Your task to perform on an android device: Open Google Chrome and click the shortcut for Amazon.com Image 0: 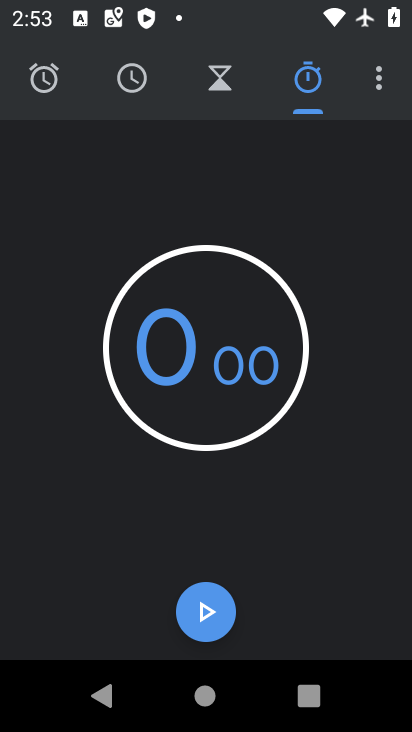
Step 0: press home button
Your task to perform on an android device: Open Google Chrome and click the shortcut for Amazon.com Image 1: 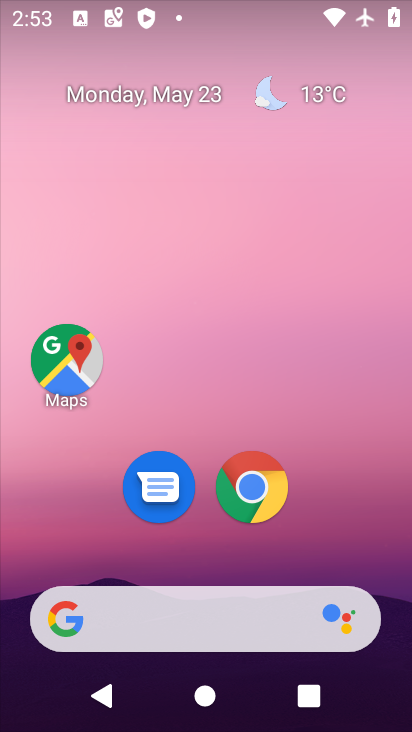
Step 1: click (256, 482)
Your task to perform on an android device: Open Google Chrome and click the shortcut for Amazon.com Image 2: 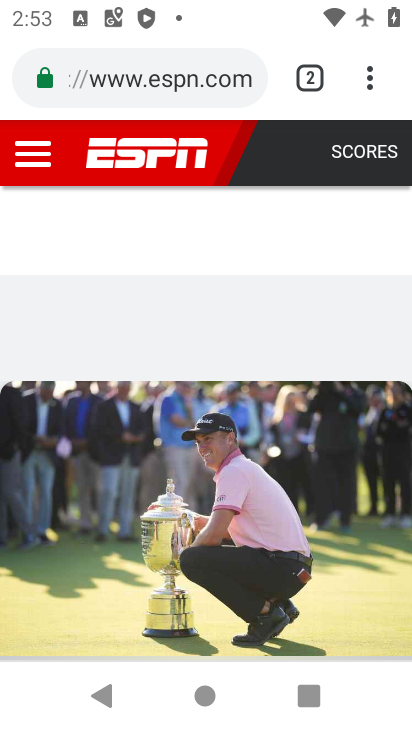
Step 2: click (370, 85)
Your task to perform on an android device: Open Google Chrome and click the shortcut for Amazon.com Image 3: 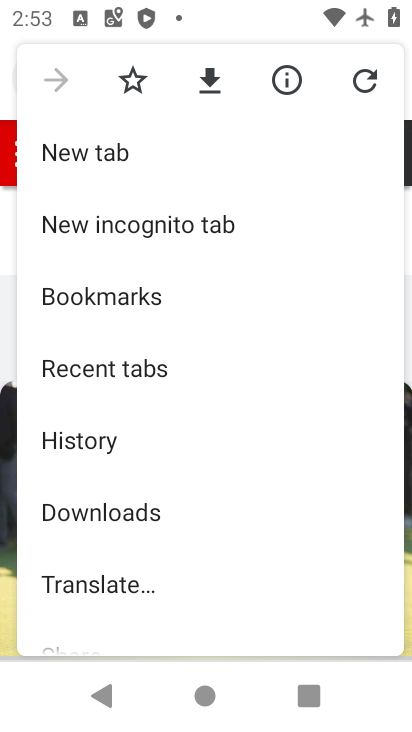
Step 3: click (93, 156)
Your task to perform on an android device: Open Google Chrome and click the shortcut for Amazon.com Image 4: 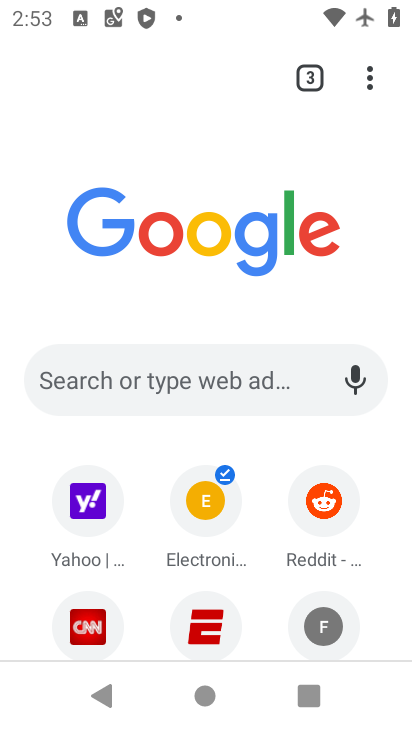
Step 4: task complete